Your task to perform on an android device: Open accessibility settings Image 0: 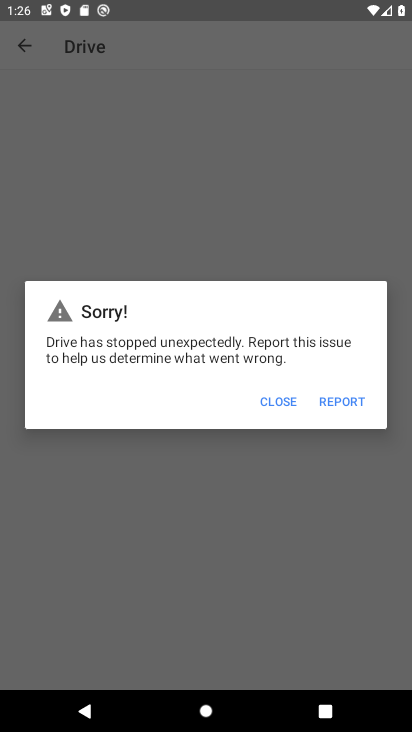
Step 0: press home button
Your task to perform on an android device: Open accessibility settings Image 1: 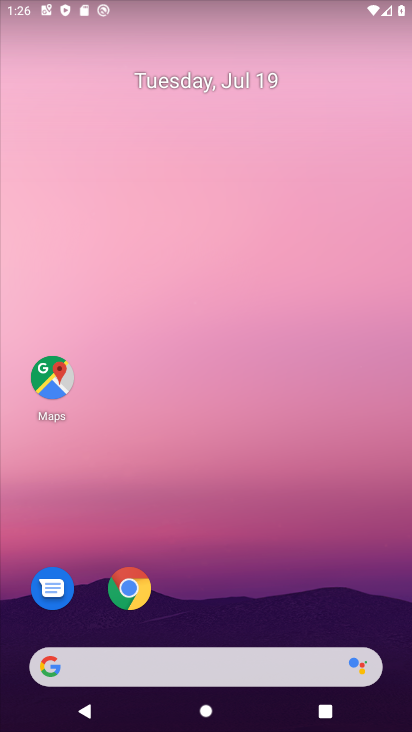
Step 1: drag from (48, 666) to (257, 6)
Your task to perform on an android device: Open accessibility settings Image 2: 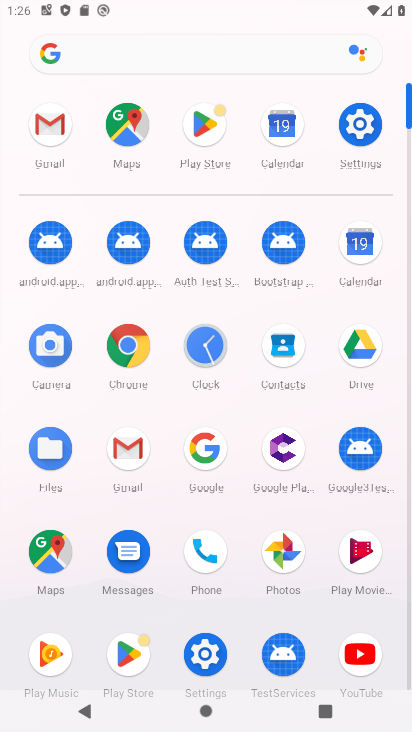
Step 2: click (193, 663)
Your task to perform on an android device: Open accessibility settings Image 3: 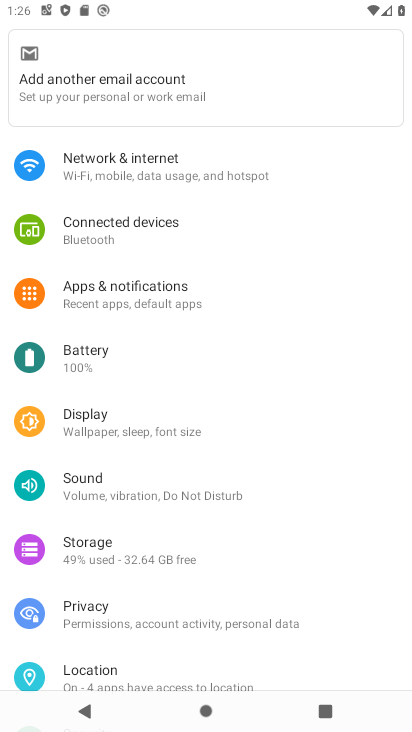
Step 3: click (116, 168)
Your task to perform on an android device: Open accessibility settings Image 4: 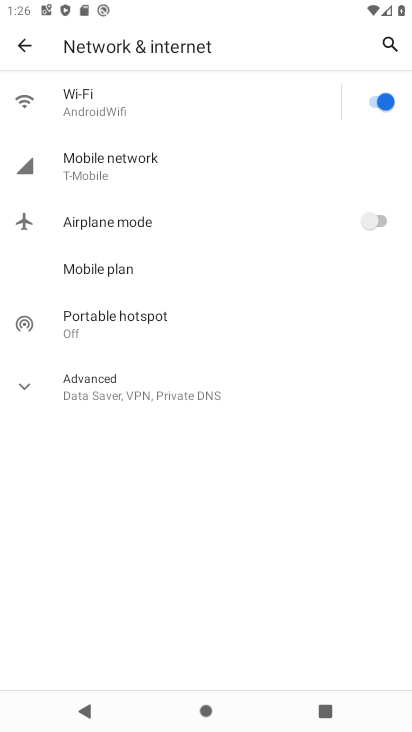
Step 4: click (22, 42)
Your task to perform on an android device: Open accessibility settings Image 5: 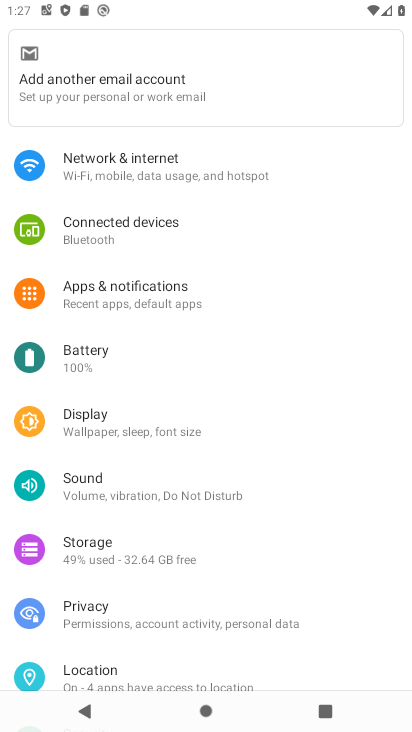
Step 5: drag from (145, 631) to (284, 87)
Your task to perform on an android device: Open accessibility settings Image 6: 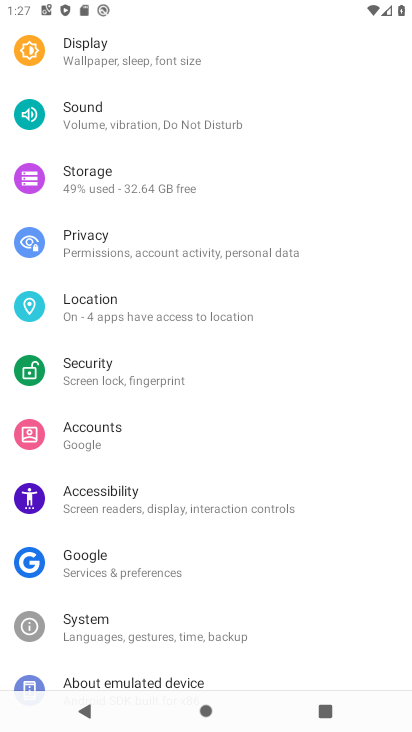
Step 6: drag from (190, 605) to (234, 387)
Your task to perform on an android device: Open accessibility settings Image 7: 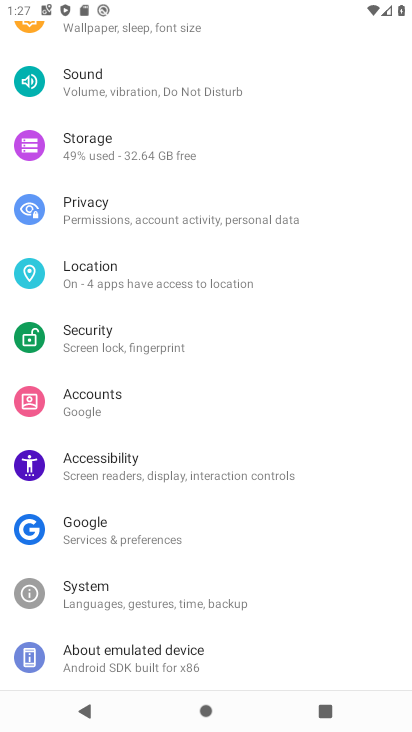
Step 7: click (106, 465)
Your task to perform on an android device: Open accessibility settings Image 8: 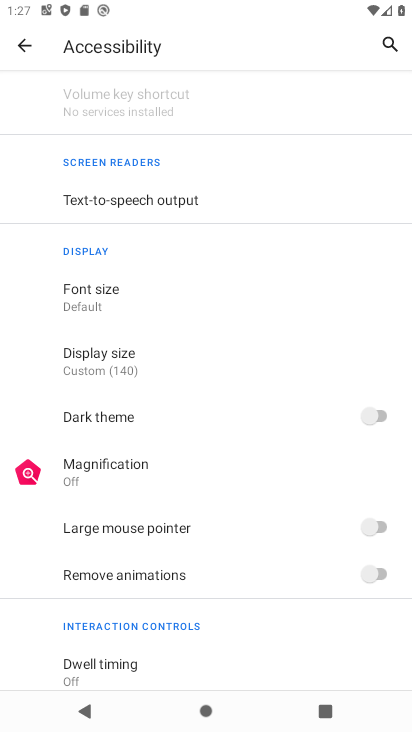
Step 8: task complete